Your task to perform on an android device: add a label to a message in the gmail app Image 0: 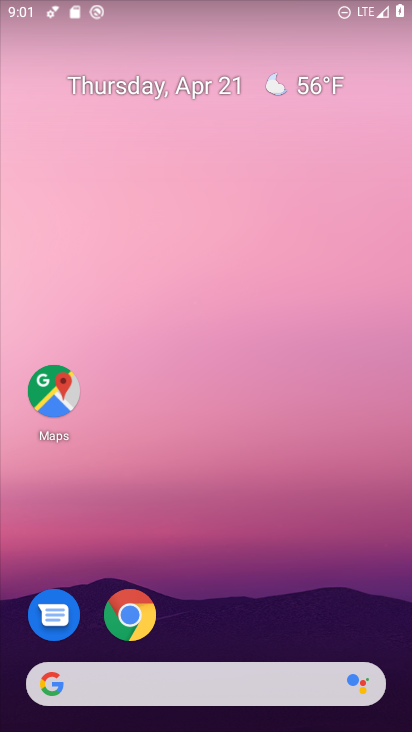
Step 0: drag from (264, 463) to (329, 2)
Your task to perform on an android device: add a label to a message in the gmail app Image 1: 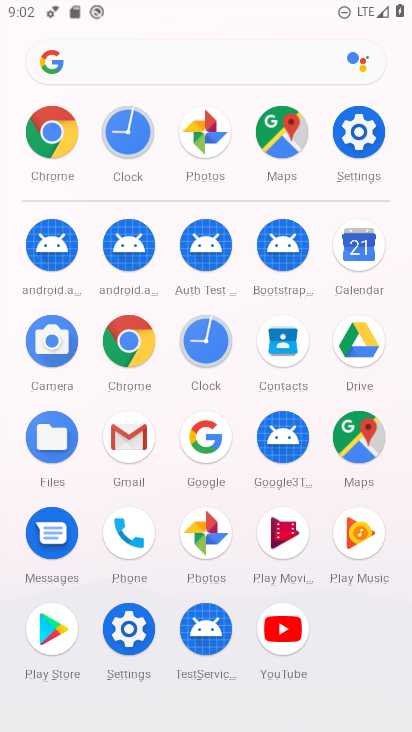
Step 1: click (124, 435)
Your task to perform on an android device: add a label to a message in the gmail app Image 2: 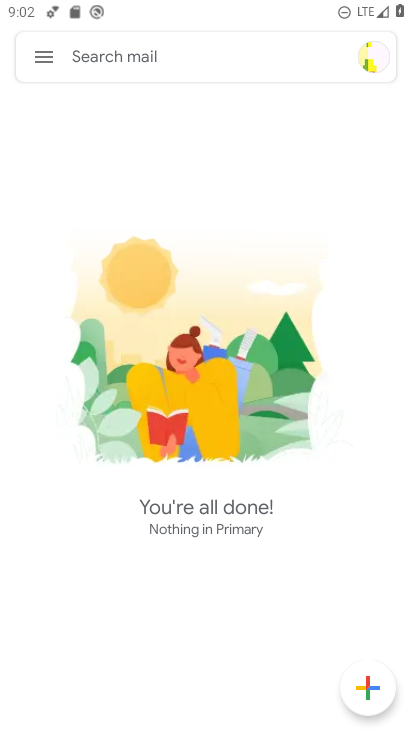
Step 2: click (33, 58)
Your task to perform on an android device: add a label to a message in the gmail app Image 3: 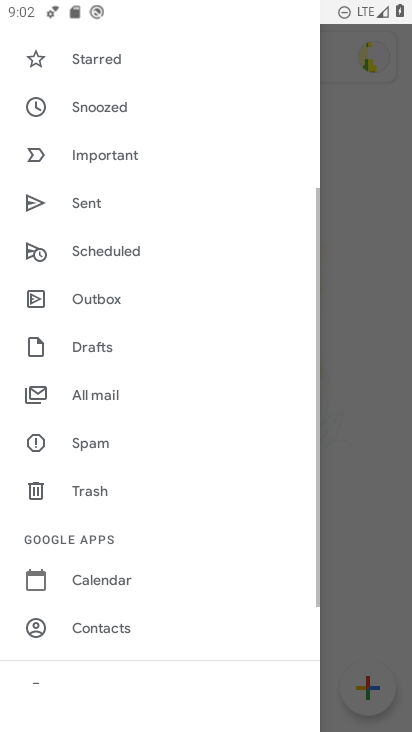
Step 3: drag from (161, 238) to (168, 588)
Your task to perform on an android device: add a label to a message in the gmail app Image 4: 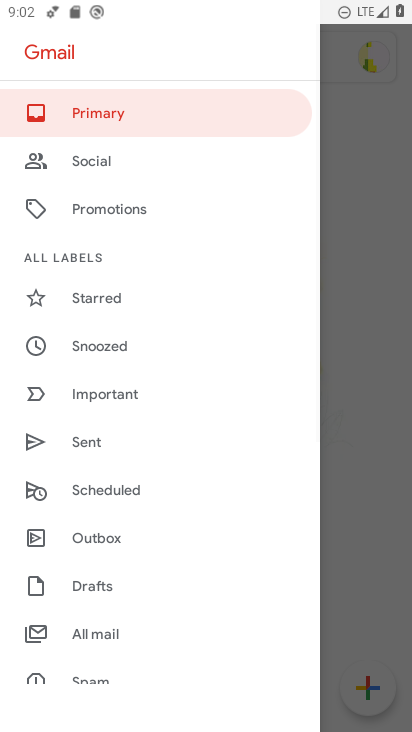
Step 4: drag from (113, 618) to (126, 294)
Your task to perform on an android device: add a label to a message in the gmail app Image 5: 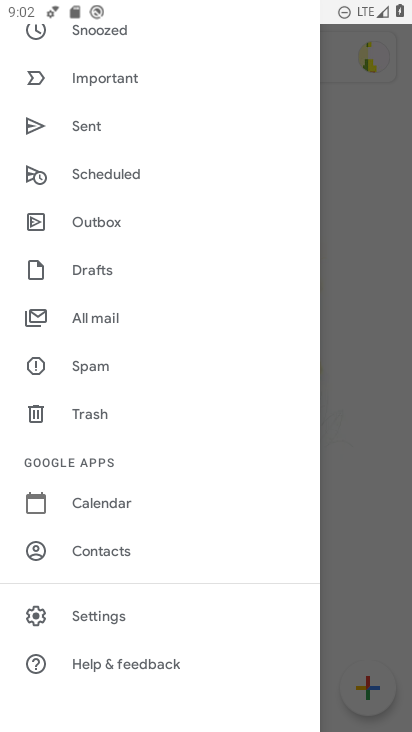
Step 5: click (79, 315)
Your task to perform on an android device: add a label to a message in the gmail app Image 6: 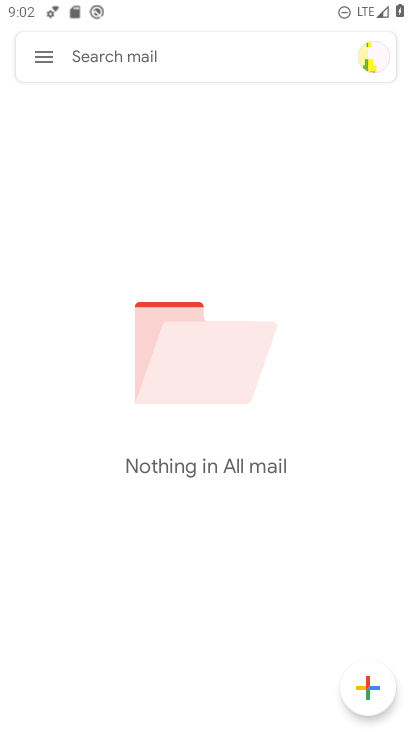
Step 6: task complete